Your task to perform on an android device: check android version Image 0: 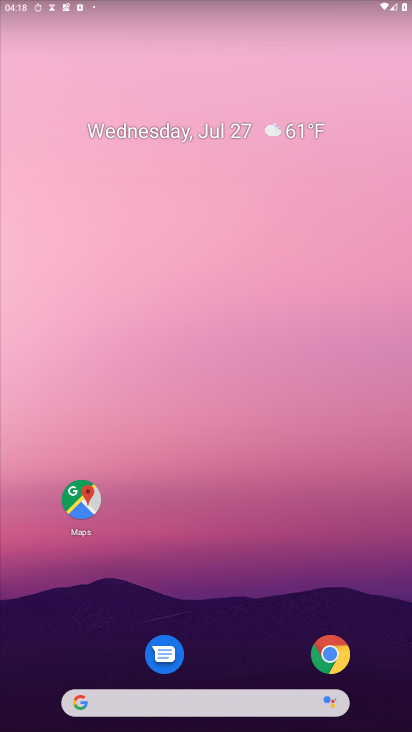
Step 0: drag from (276, 641) to (293, 22)
Your task to perform on an android device: check android version Image 1: 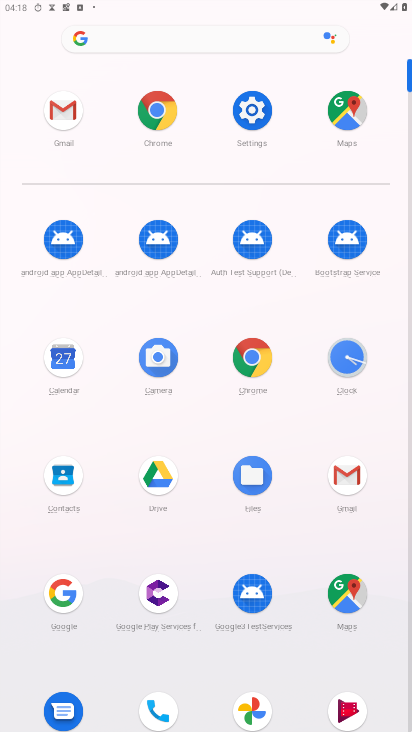
Step 1: click (264, 114)
Your task to perform on an android device: check android version Image 2: 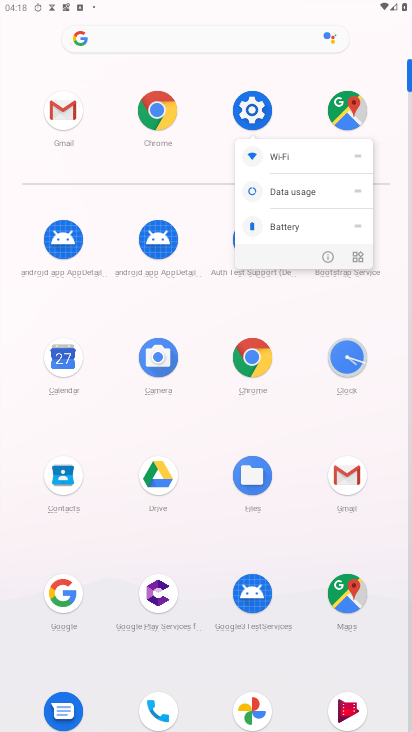
Step 2: click (246, 118)
Your task to perform on an android device: check android version Image 3: 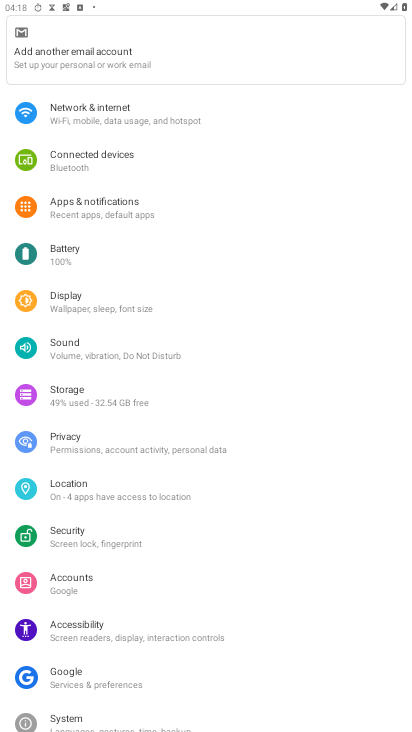
Step 3: drag from (228, 663) to (302, 142)
Your task to perform on an android device: check android version Image 4: 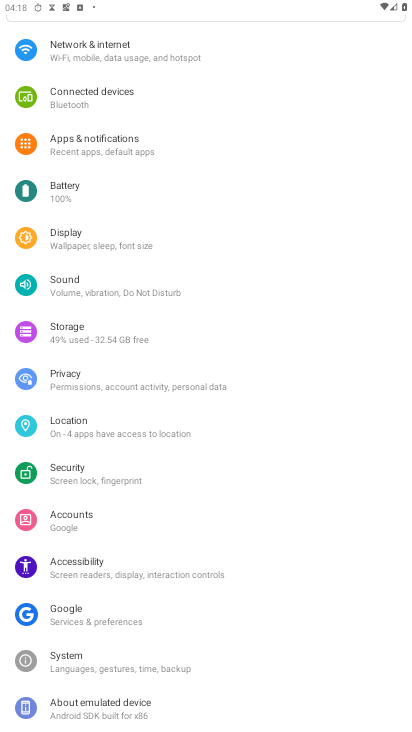
Step 4: click (178, 705)
Your task to perform on an android device: check android version Image 5: 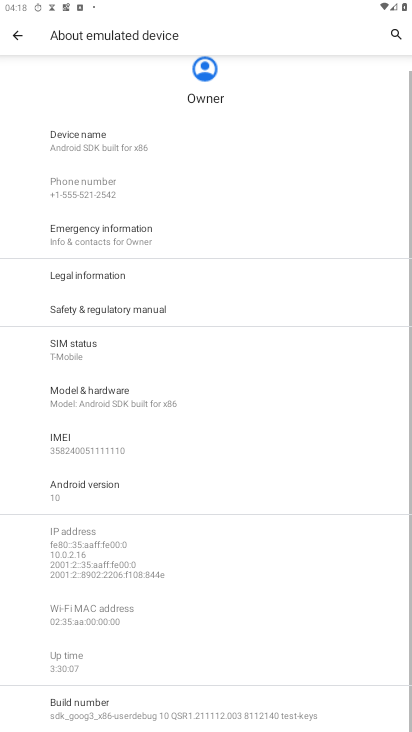
Step 5: click (135, 488)
Your task to perform on an android device: check android version Image 6: 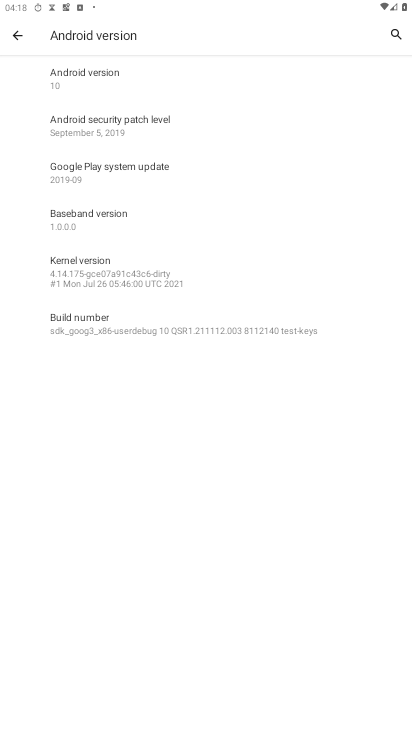
Step 6: task complete